Your task to perform on an android device: toggle sleep mode Image 0: 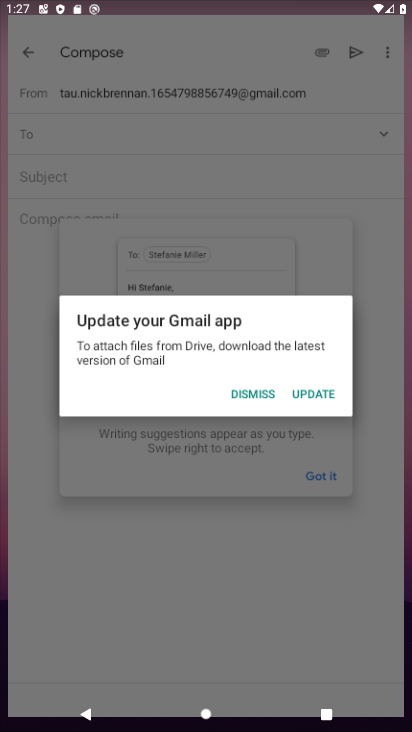
Step 0: drag from (266, 652) to (264, 214)
Your task to perform on an android device: toggle sleep mode Image 1: 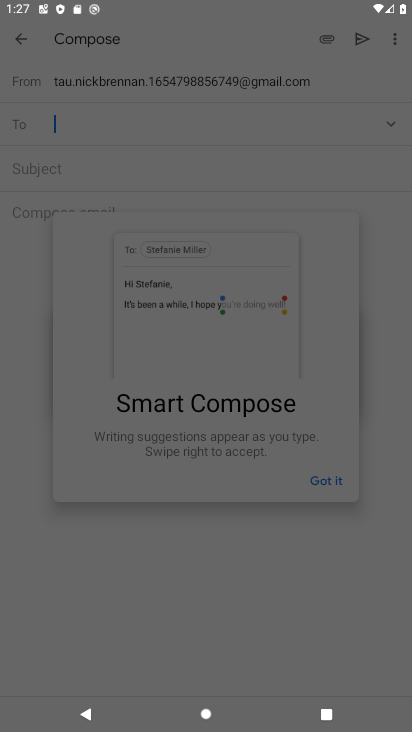
Step 1: click (319, 464)
Your task to perform on an android device: toggle sleep mode Image 2: 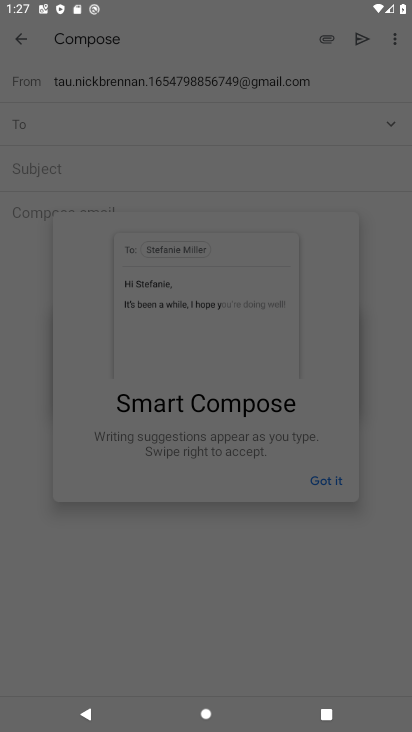
Step 2: click (319, 464)
Your task to perform on an android device: toggle sleep mode Image 3: 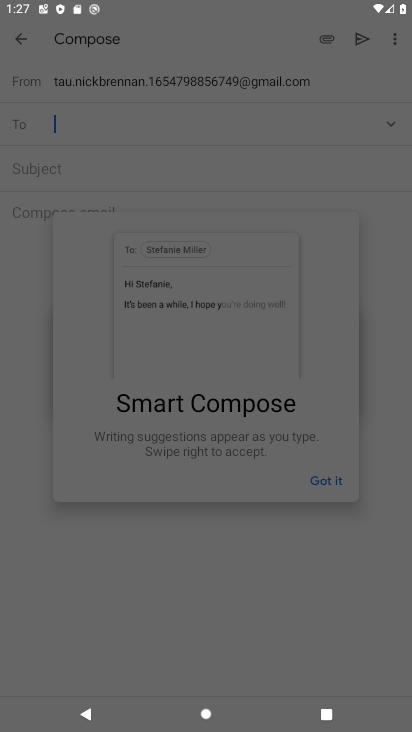
Step 3: click (319, 476)
Your task to perform on an android device: toggle sleep mode Image 4: 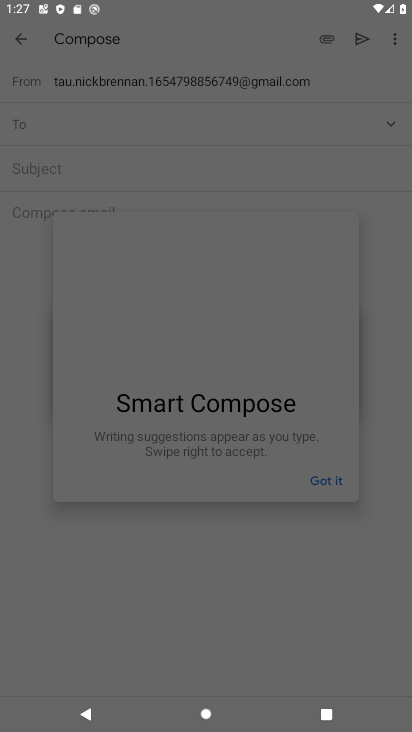
Step 4: task complete